Your task to perform on an android device: refresh tabs in the chrome app Image 0: 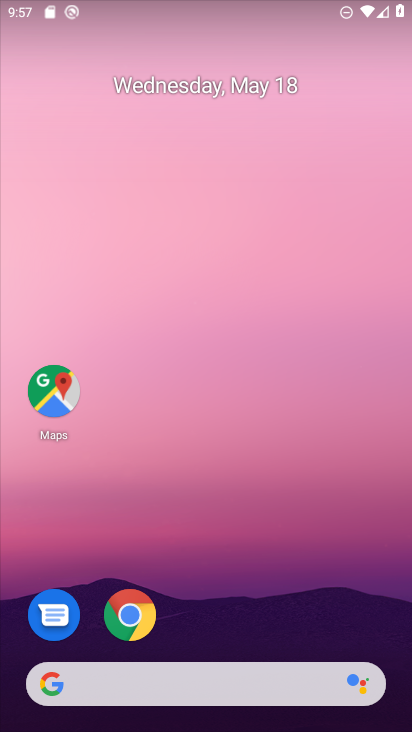
Step 0: click (130, 616)
Your task to perform on an android device: refresh tabs in the chrome app Image 1: 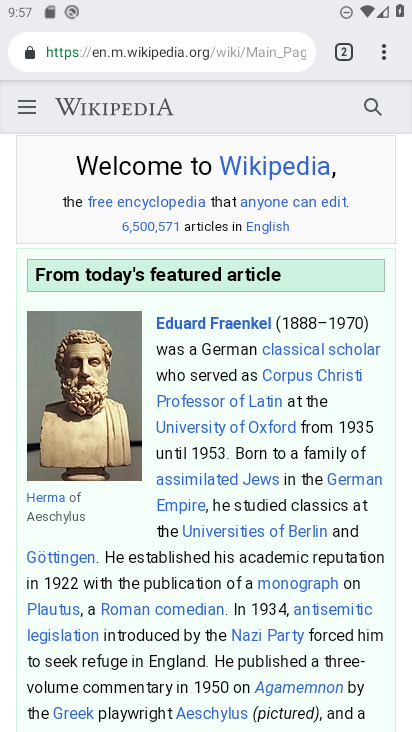
Step 1: click (379, 53)
Your task to perform on an android device: refresh tabs in the chrome app Image 2: 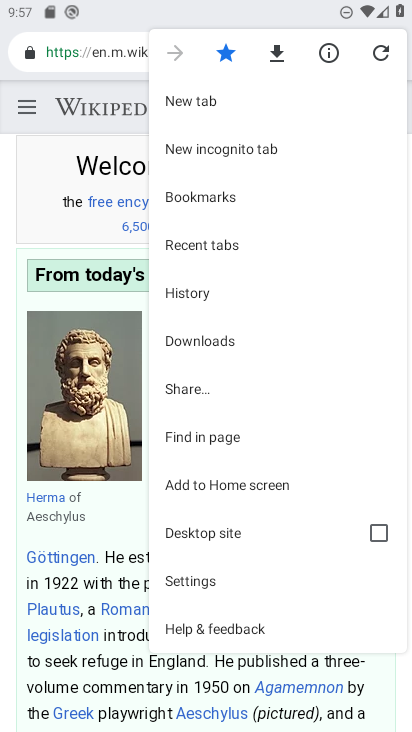
Step 2: click (374, 58)
Your task to perform on an android device: refresh tabs in the chrome app Image 3: 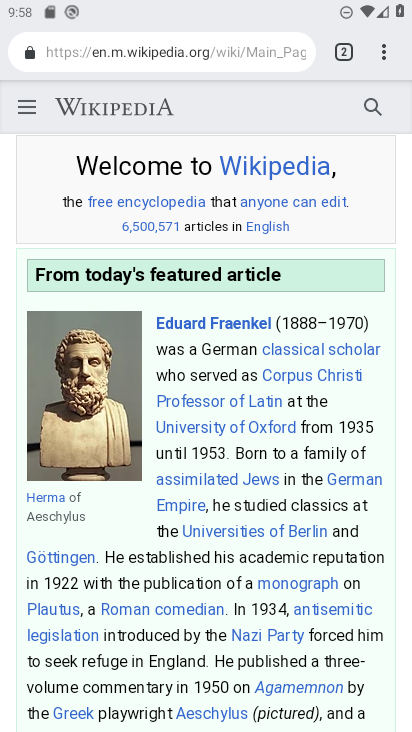
Step 3: task complete